Your task to perform on an android device: Go to calendar. Show me events next week Image 0: 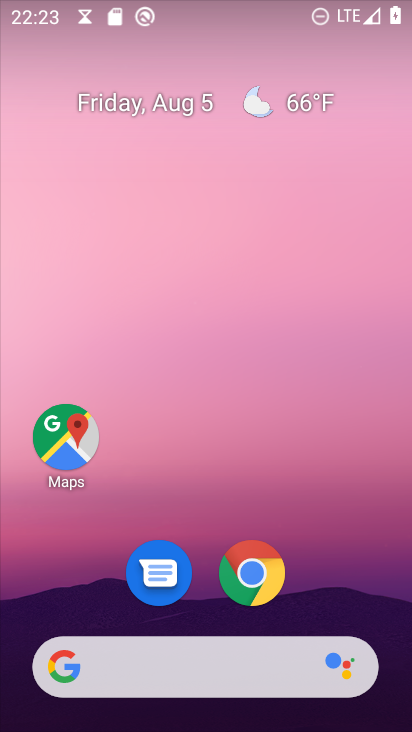
Step 0: drag from (190, 663) to (258, 187)
Your task to perform on an android device: Go to calendar. Show me events next week Image 1: 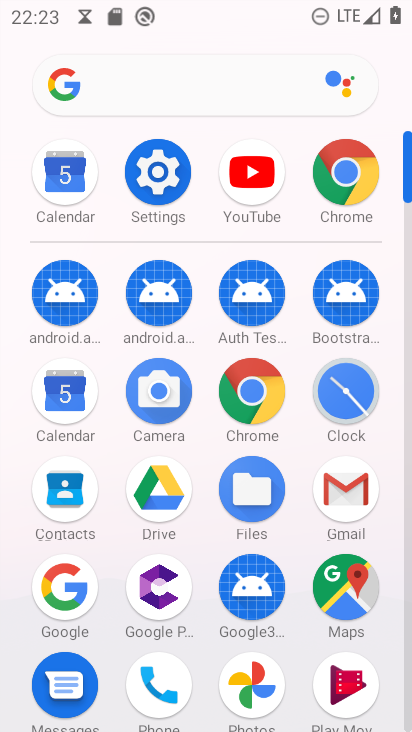
Step 1: click (66, 390)
Your task to perform on an android device: Go to calendar. Show me events next week Image 2: 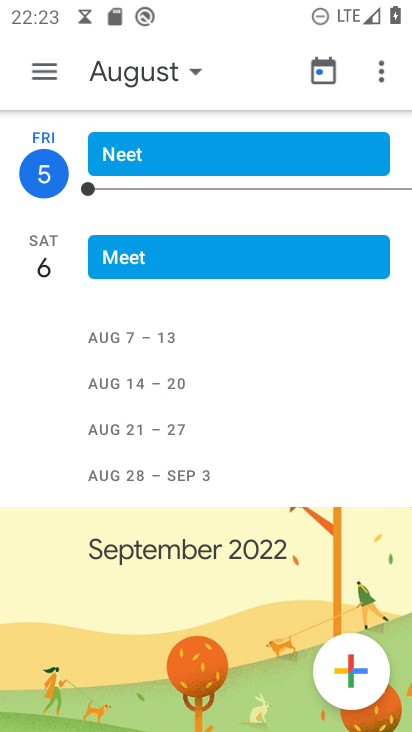
Step 2: click (335, 75)
Your task to perform on an android device: Go to calendar. Show me events next week Image 3: 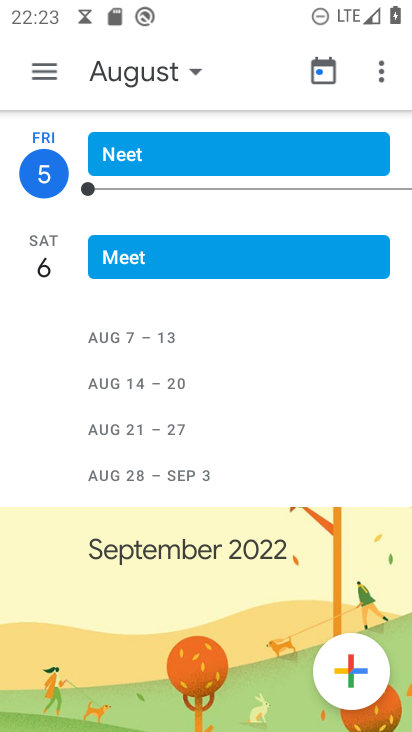
Step 3: click (335, 75)
Your task to perform on an android device: Go to calendar. Show me events next week Image 4: 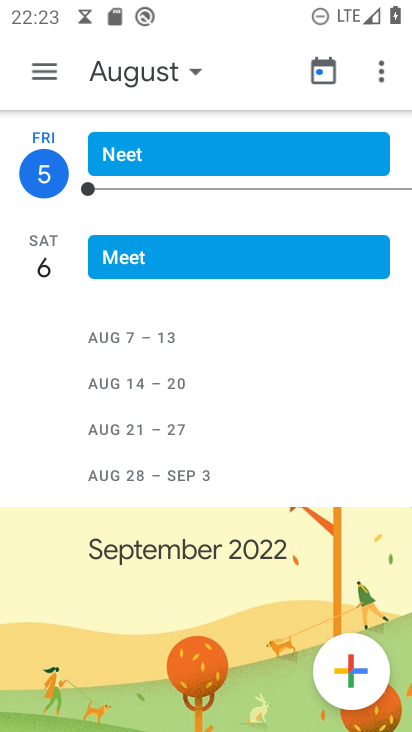
Step 4: click (200, 71)
Your task to perform on an android device: Go to calendar. Show me events next week Image 5: 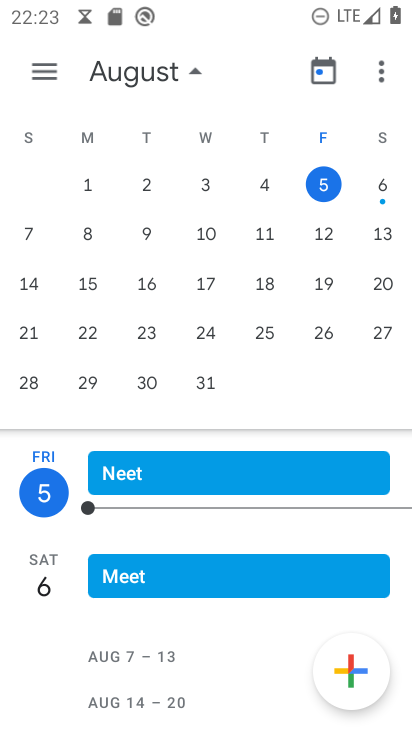
Step 5: click (90, 229)
Your task to perform on an android device: Go to calendar. Show me events next week Image 6: 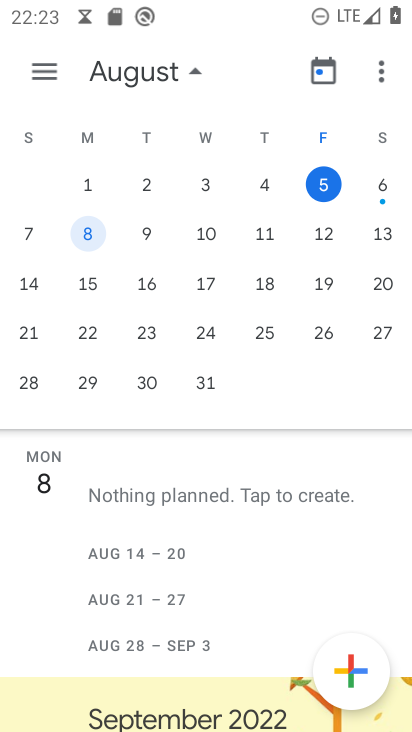
Step 6: drag from (181, 535) to (228, 451)
Your task to perform on an android device: Go to calendar. Show me events next week Image 7: 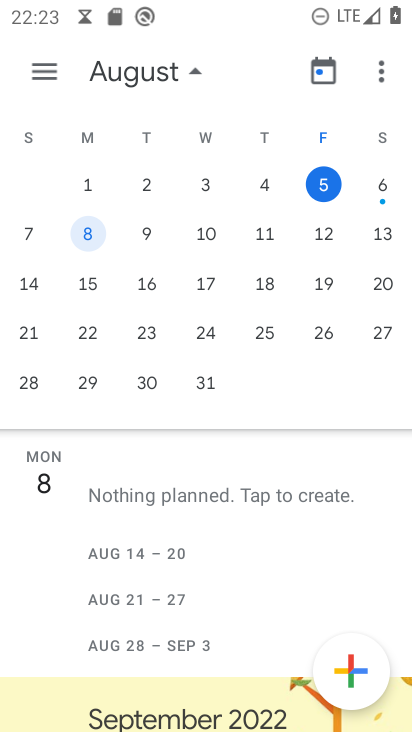
Step 7: click (57, 70)
Your task to perform on an android device: Go to calendar. Show me events next week Image 8: 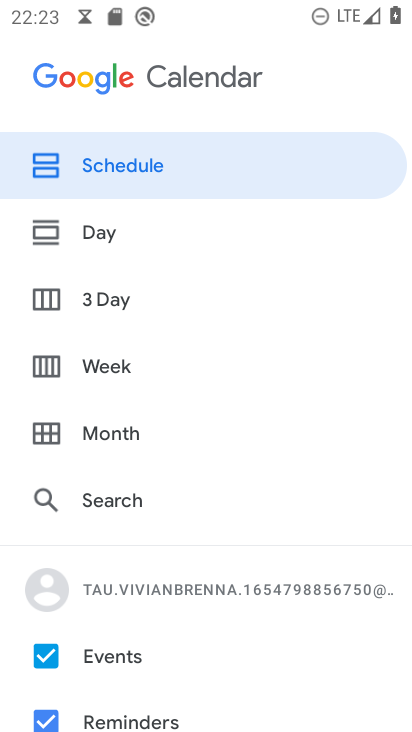
Step 8: click (108, 356)
Your task to perform on an android device: Go to calendar. Show me events next week Image 9: 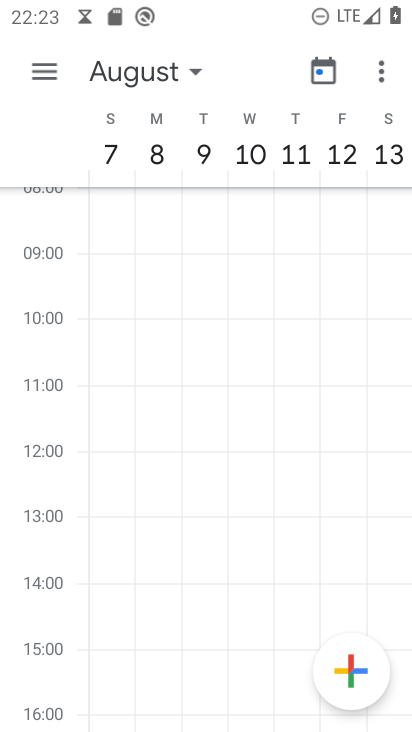
Step 9: task complete